Your task to perform on an android device: open app "Nova Launcher" Image 0: 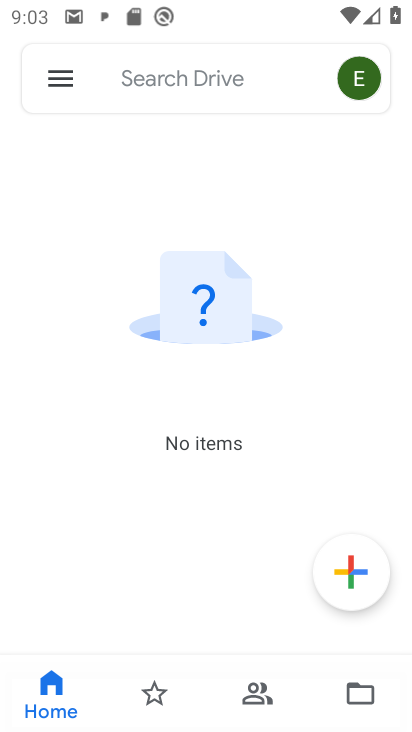
Step 0: press home button
Your task to perform on an android device: open app "Nova Launcher" Image 1: 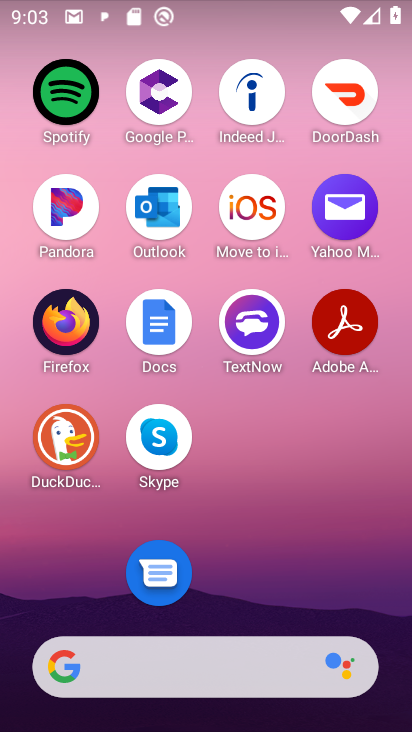
Step 1: drag from (231, 578) to (232, 165)
Your task to perform on an android device: open app "Nova Launcher" Image 2: 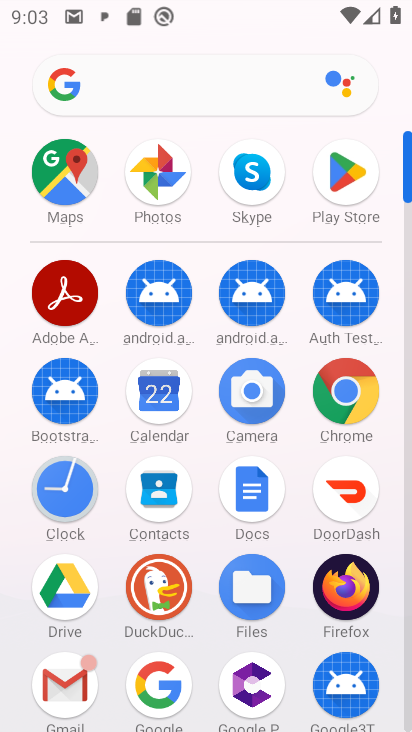
Step 2: click (344, 193)
Your task to perform on an android device: open app "Nova Launcher" Image 3: 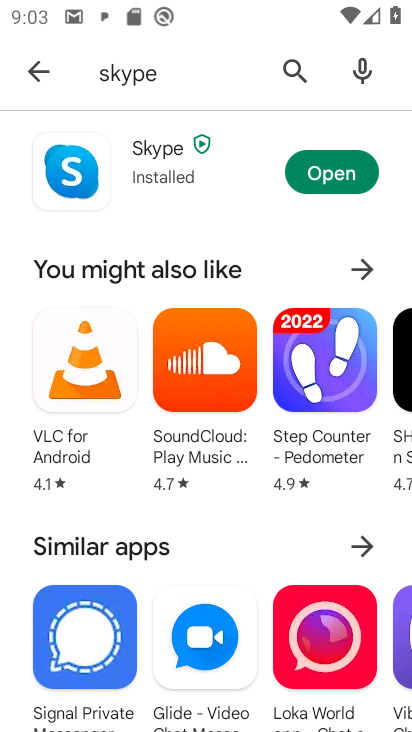
Step 3: click (167, 76)
Your task to perform on an android device: open app "Nova Launcher" Image 4: 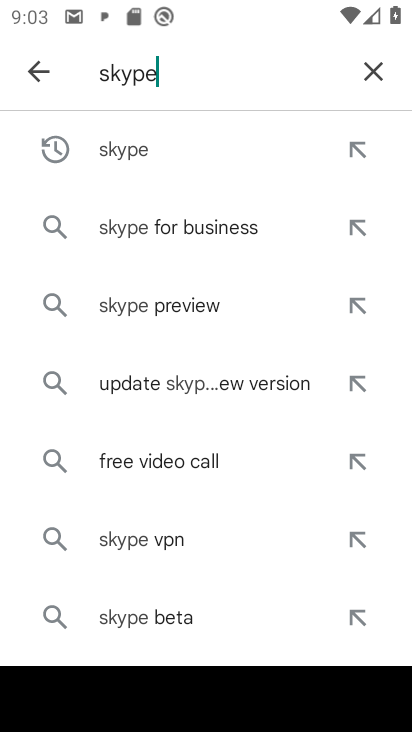
Step 4: click (367, 70)
Your task to perform on an android device: open app "Nova Launcher" Image 5: 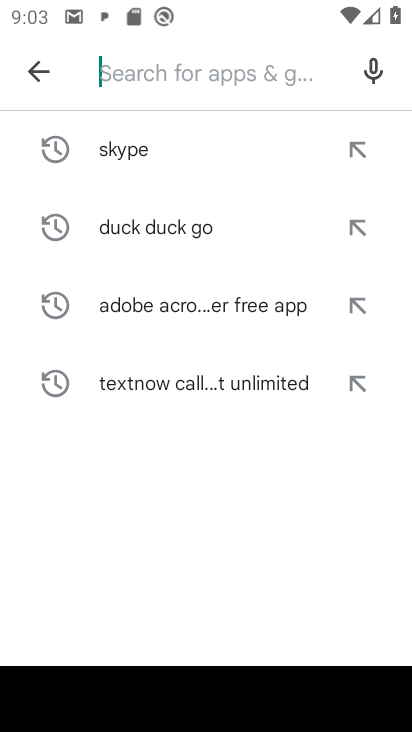
Step 5: type "Nova launcher"
Your task to perform on an android device: open app "Nova Launcher" Image 6: 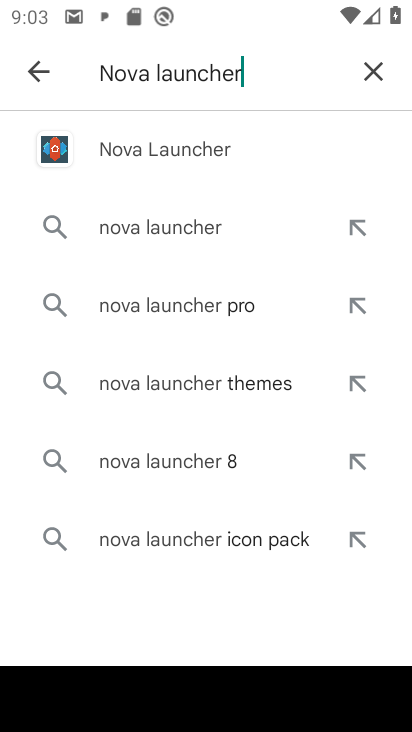
Step 6: click (162, 159)
Your task to perform on an android device: open app "Nova Launcher" Image 7: 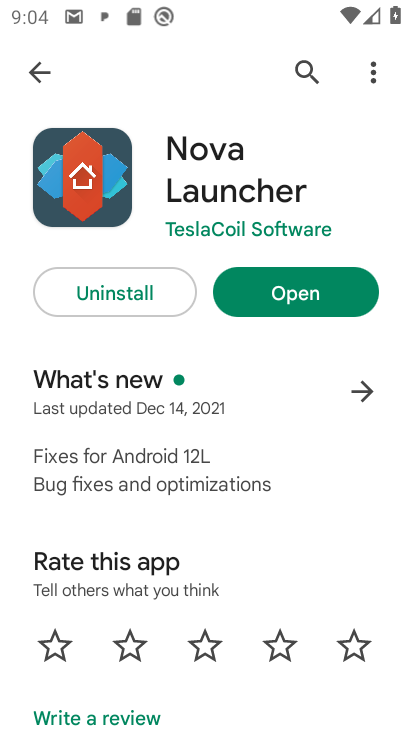
Step 7: click (293, 302)
Your task to perform on an android device: open app "Nova Launcher" Image 8: 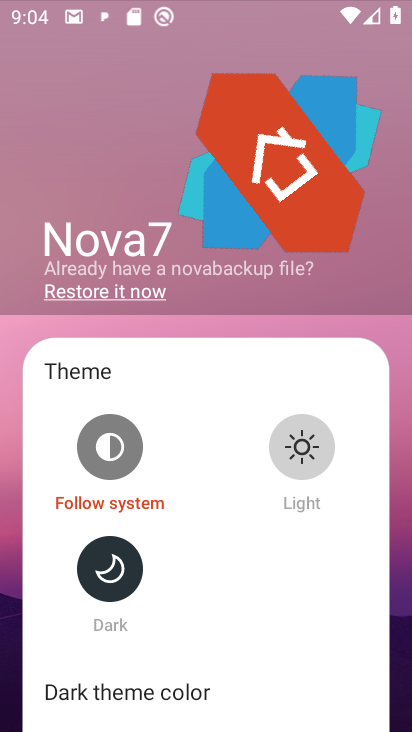
Step 8: task complete